Your task to perform on an android device: Open Reddit.com Image 0: 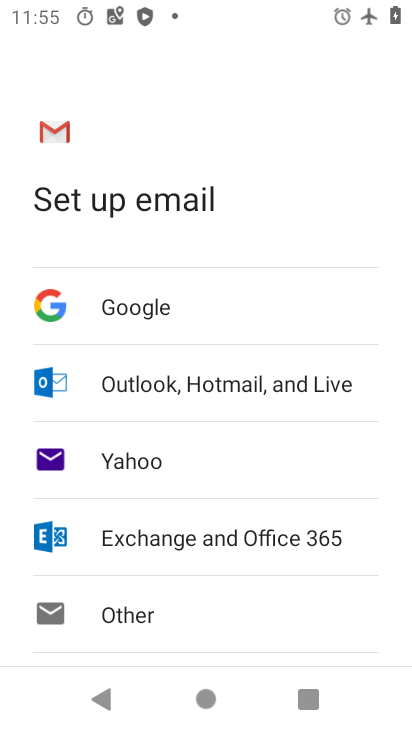
Step 0: press home button
Your task to perform on an android device: Open Reddit.com Image 1: 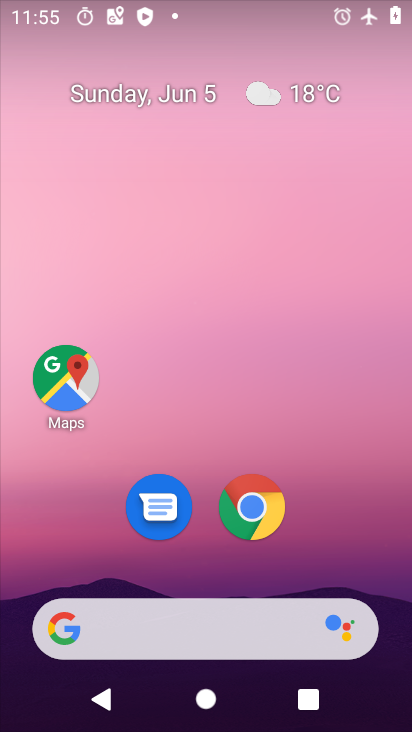
Step 1: click (254, 506)
Your task to perform on an android device: Open Reddit.com Image 2: 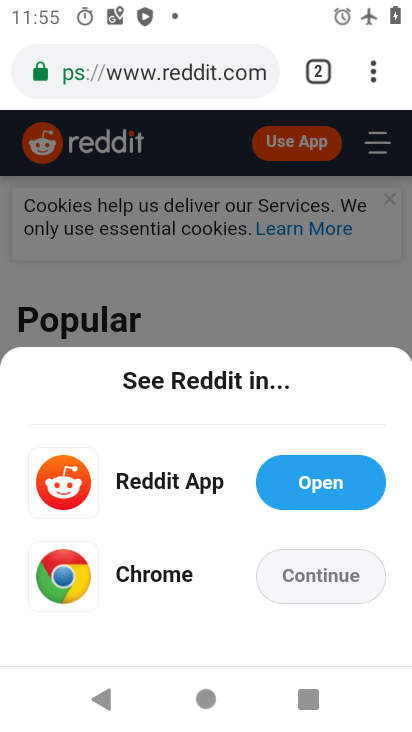
Step 2: task complete